Your task to perform on an android device: Open settings on Google Maps Image 0: 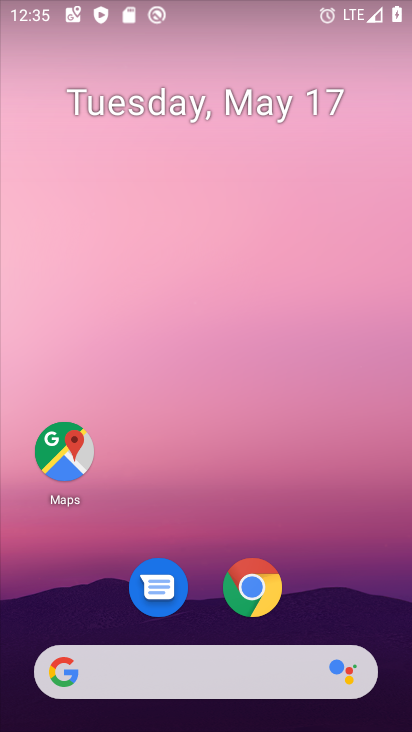
Step 0: drag from (365, 632) to (323, 87)
Your task to perform on an android device: Open settings on Google Maps Image 1: 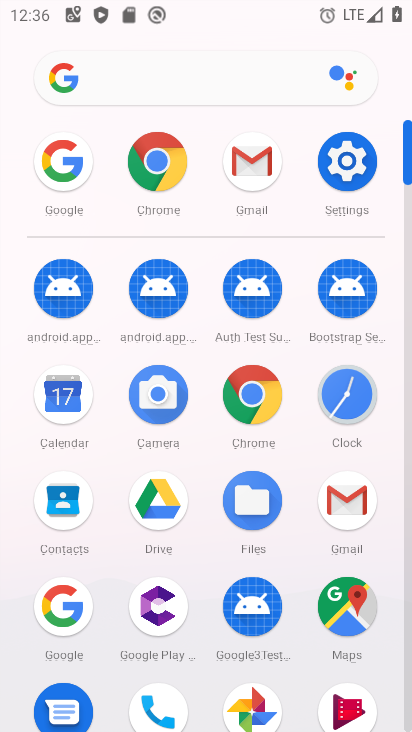
Step 1: click (343, 593)
Your task to perform on an android device: Open settings on Google Maps Image 2: 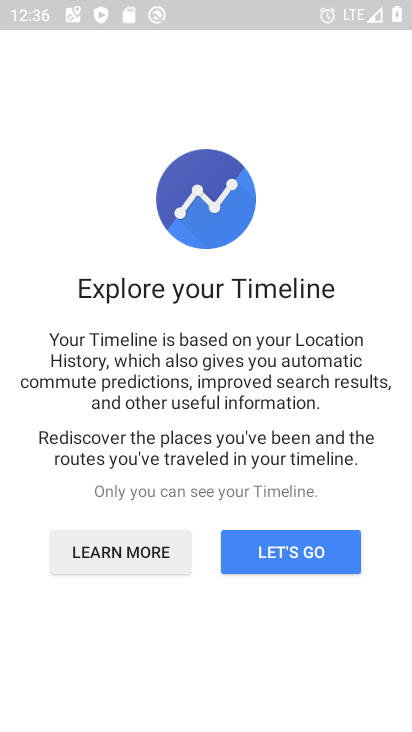
Step 2: press back button
Your task to perform on an android device: Open settings on Google Maps Image 3: 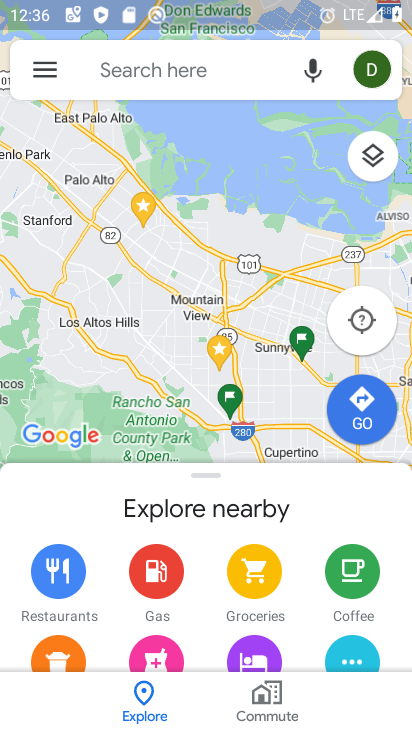
Step 3: click (39, 72)
Your task to perform on an android device: Open settings on Google Maps Image 4: 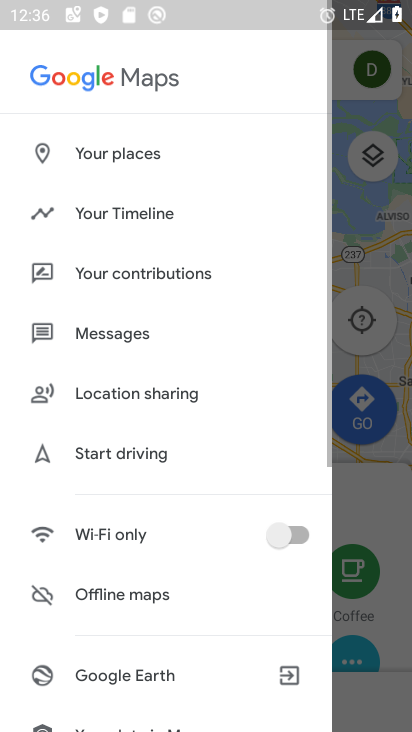
Step 4: drag from (114, 681) to (196, 163)
Your task to perform on an android device: Open settings on Google Maps Image 5: 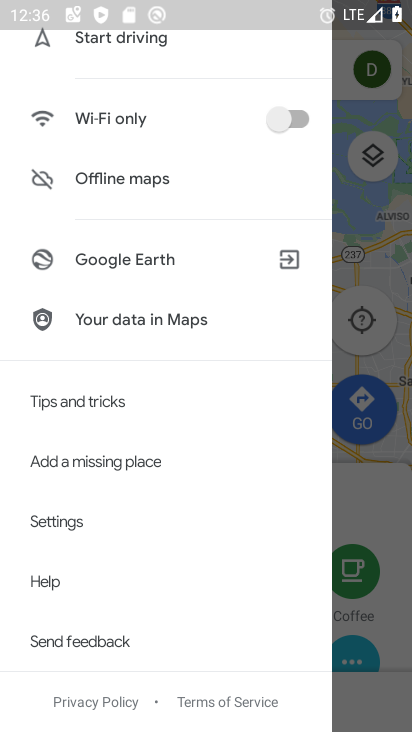
Step 5: click (105, 515)
Your task to perform on an android device: Open settings on Google Maps Image 6: 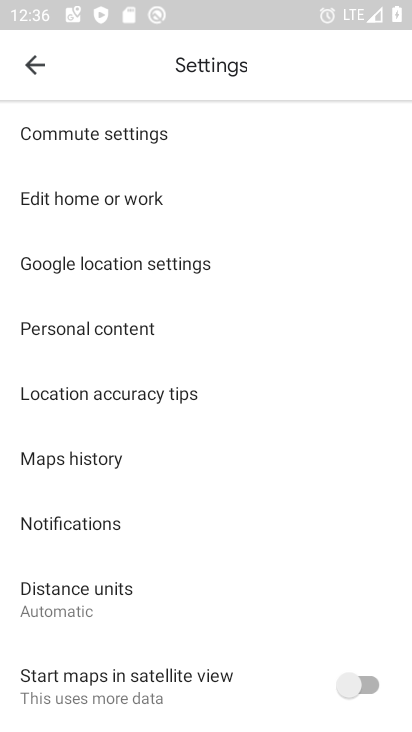
Step 6: task complete